Your task to perform on an android device: turn on the 12-hour format for clock Image 0: 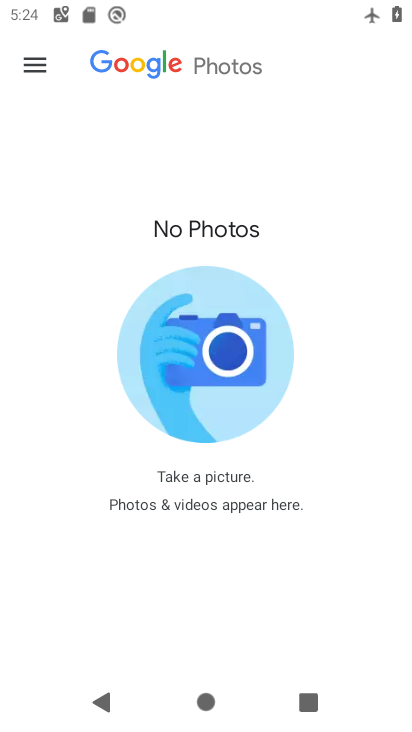
Step 0: press home button
Your task to perform on an android device: turn on the 12-hour format for clock Image 1: 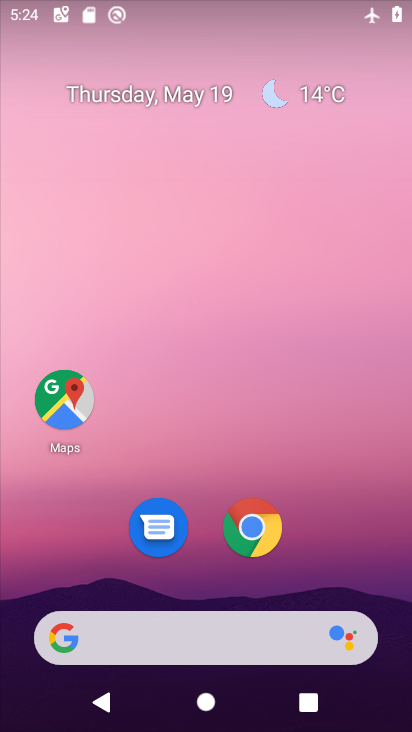
Step 1: drag from (325, 430) to (241, 47)
Your task to perform on an android device: turn on the 12-hour format for clock Image 2: 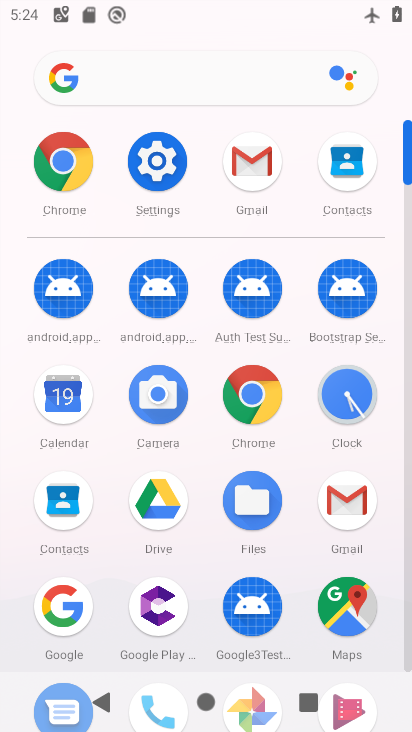
Step 2: click (361, 392)
Your task to perform on an android device: turn on the 12-hour format for clock Image 3: 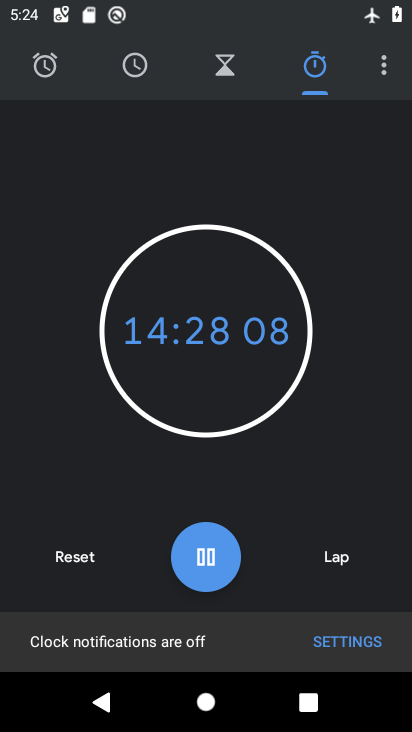
Step 3: click (380, 53)
Your task to perform on an android device: turn on the 12-hour format for clock Image 4: 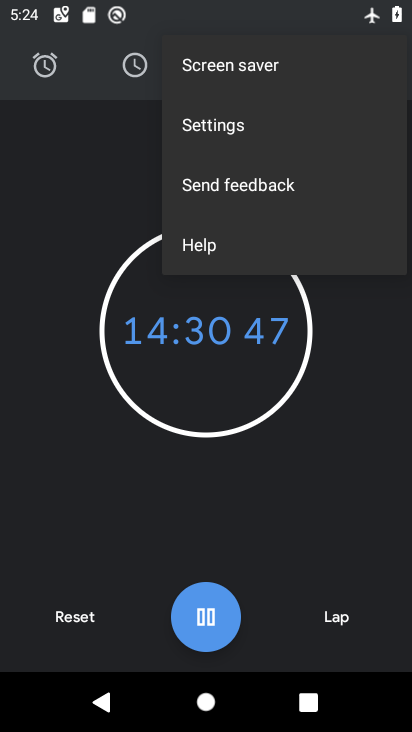
Step 4: click (220, 127)
Your task to perform on an android device: turn on the 12-hour format for clock Image 5: 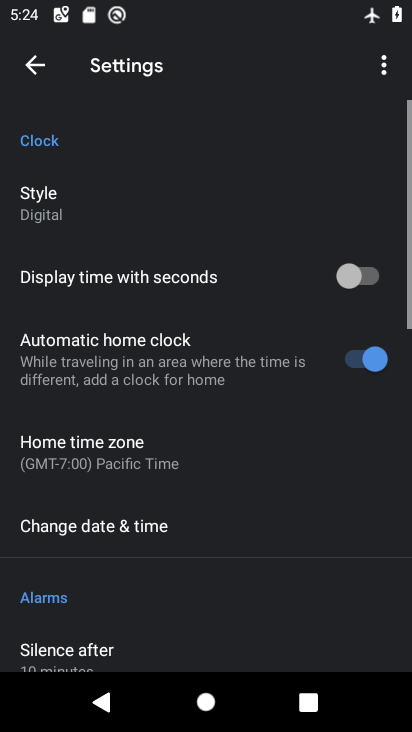
Step 5: drag from (211, 578) to (207, 166)
Your task to perform on an android device: turn on the 12-hour format for clock Image 6: 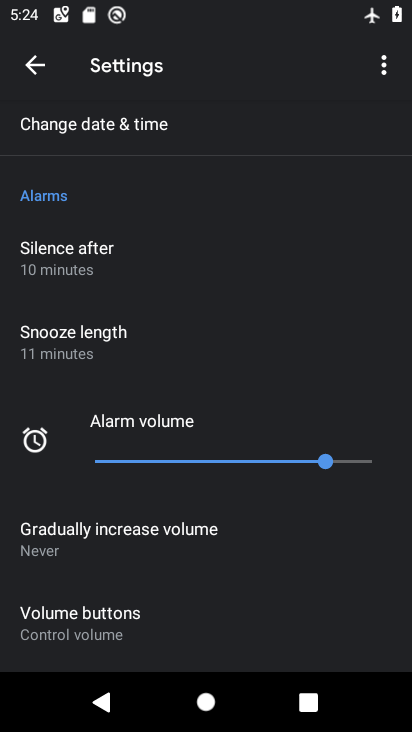
Step 6: drag from (231, 208) to (202, 411)
Your task to perform on an android device: turn on the 12-hour format for clock Image 7: 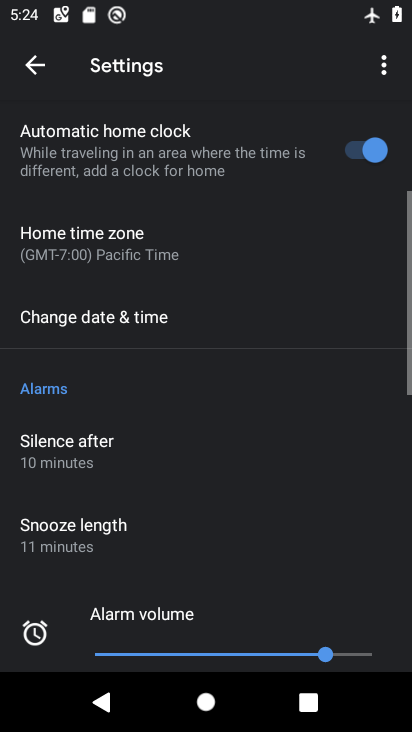
Step 7: click (127, 273)
Your task to perform on an android device: turn on the 12-hour format for clock Image 8: 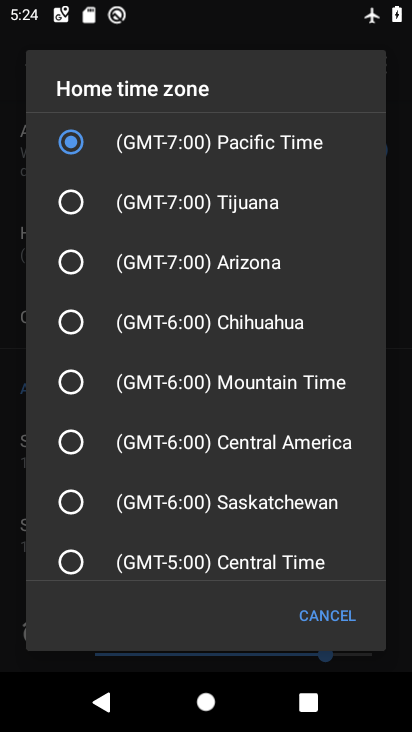
Step 8: press back button
Your task to perform on an android device: turn on the 12-hour format for clock Image 9: 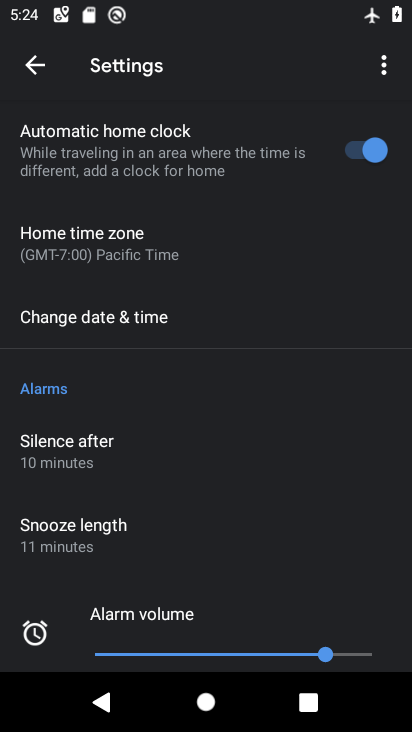
Step 9: click (110, 312)
Your task to perform on an android device: turn on the 12-hour format for clock Image 10: 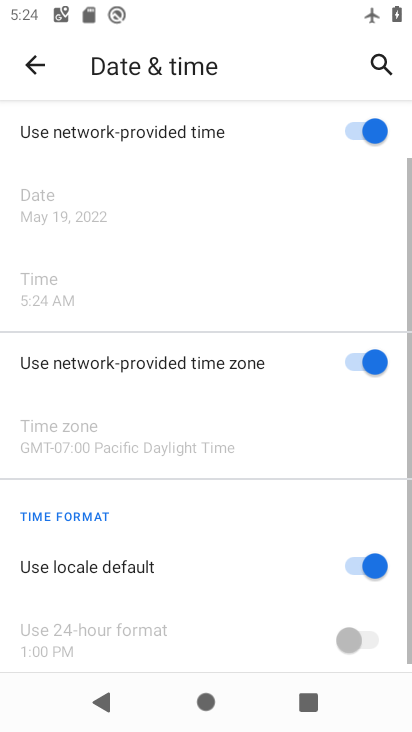
Step 10: task complete